Your task to perform on an android device: turn on javascript in the chrome app Image 0: 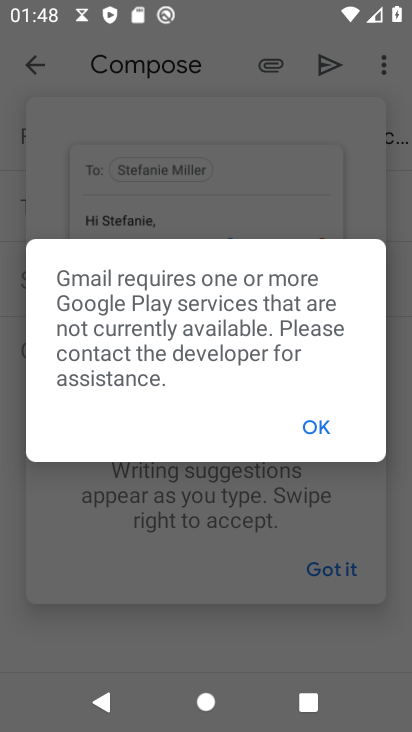
Step 0: press home button
Your task to perform on an android device: turn on javascript in the chrome app Image 1: 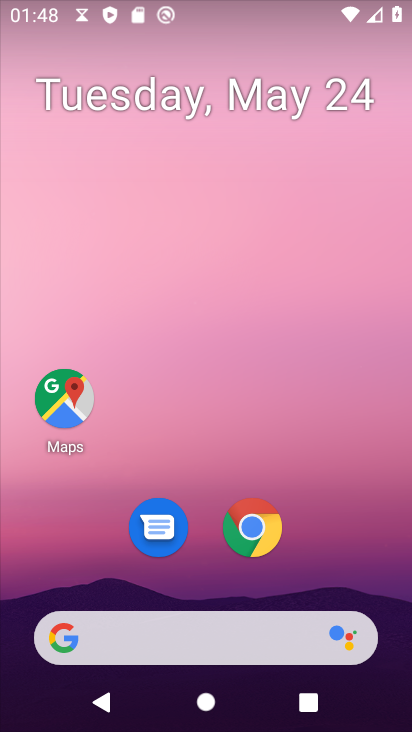
Step 1: click (252, 528)
Your task to perform on an android device: turn on javascript in the chrome app Image 2: 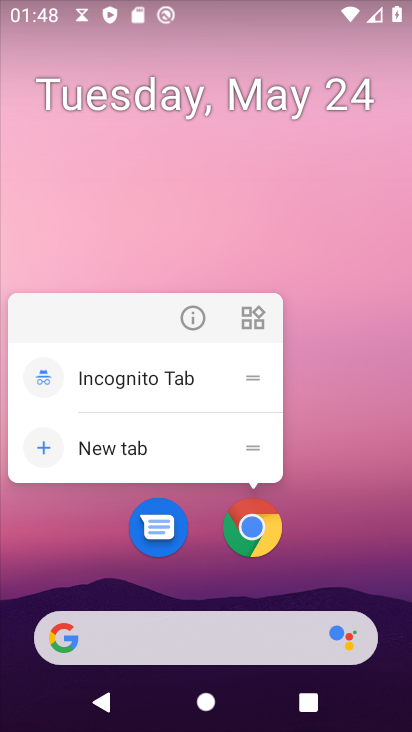
Step 2: click (261, 535)
Your task to perform on an android device: turn on javascript in the chrome app Image 3: 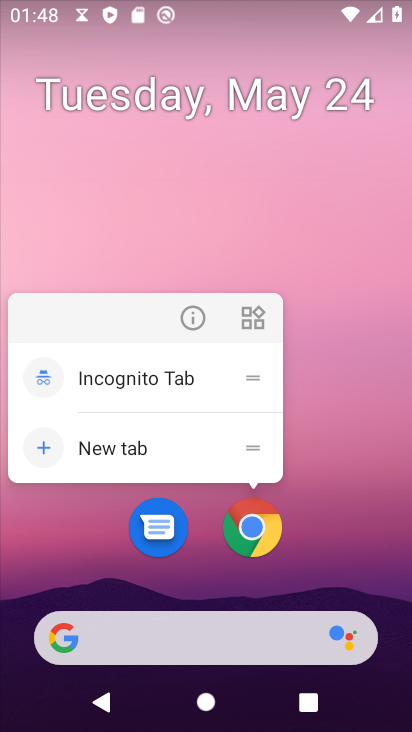
Step 3: click (254, 548)
Your task to perform on an android device: turn on javascript in the chrome app Image 4: 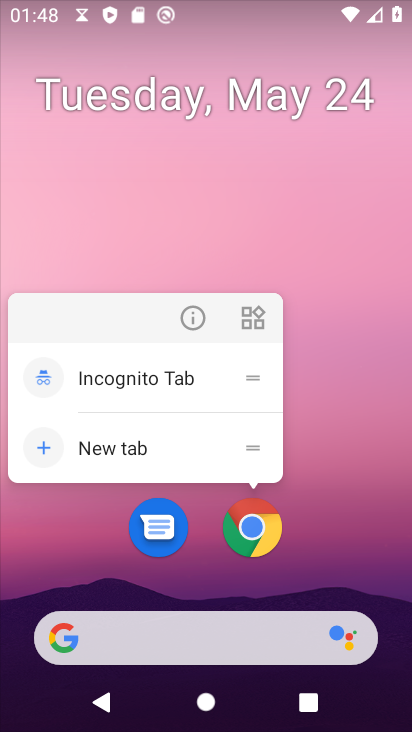
Step 4: click (254, 538)
Your task to perform on an android device: turn on javascript in the chrome app Image 5: 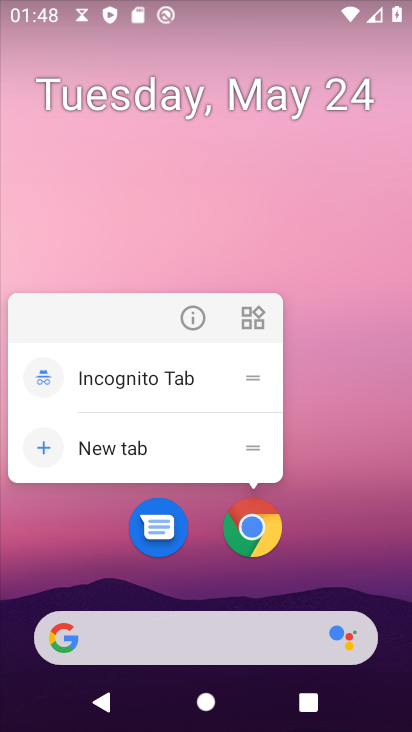
Step 5: click (256, 534)
Your task to perform on an android device: turn on javascript in the chrome app Image 6: 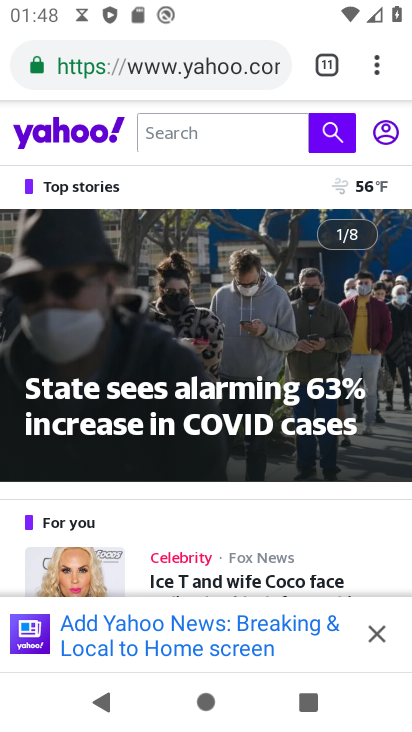
Step 6: drag from (379, 61) to (192, 560)
Your task to perform on an android device: turn on javascript in the chrome app Image 7: 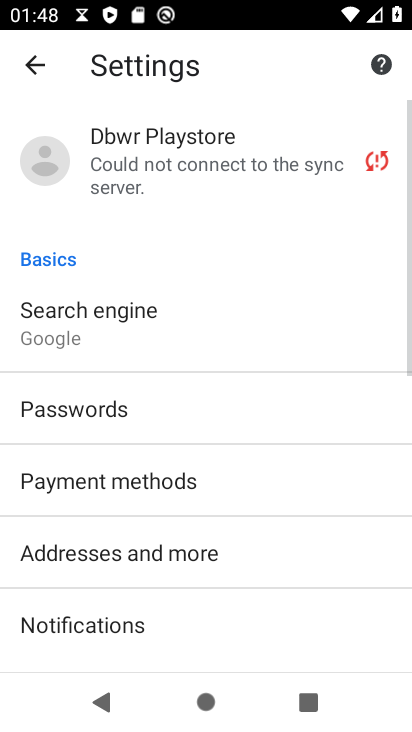
Step 7: drag from (199, 578) to (335, 123)
Your task to perform on an android device: turn on javascript in the chrome app Image 8: 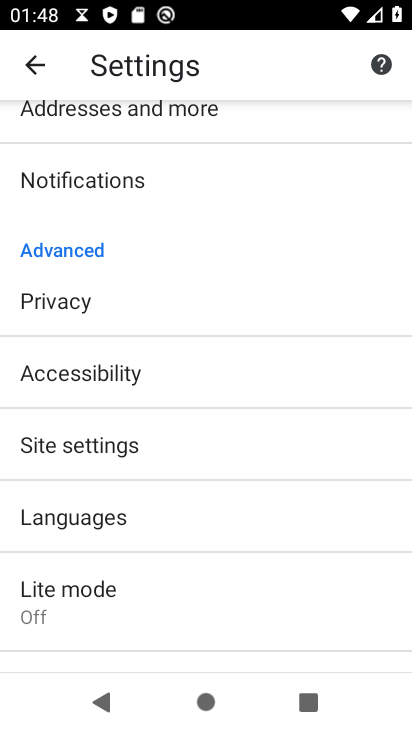
Step 8: drag from (194, 542) to (270, 267)
Your task to perform on an android device: turn on javascript in the chrome app Image 9: 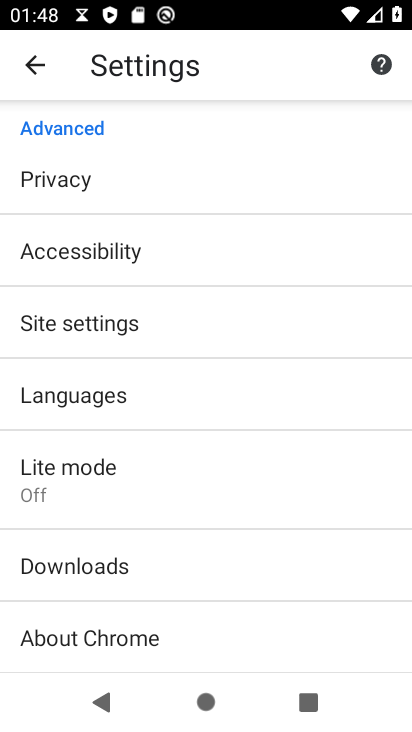
Step 9: click (121, 334)
Your task to perform on an android device: turn on javascript in the chrome app Image 10: 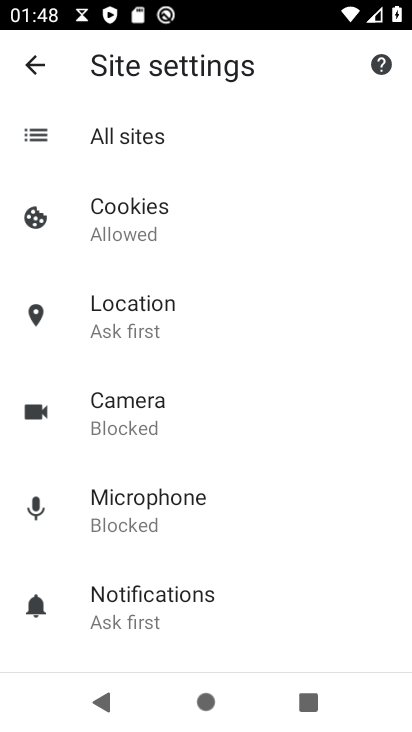
Step 10: drag from (221, 578) to (216, 206)
Your task to perform on an android device: turn on javascript in the chrome app Image 11: 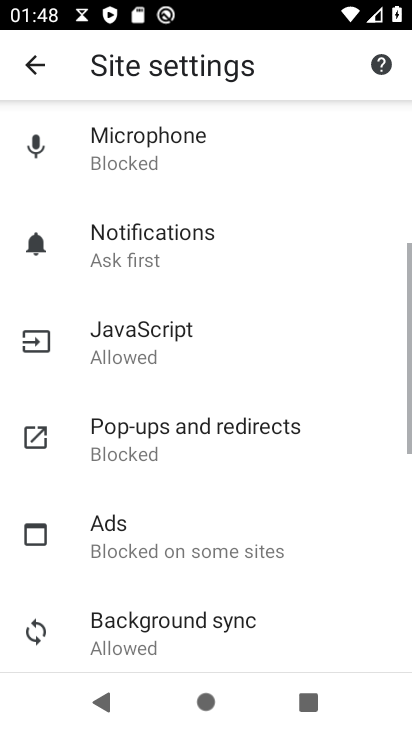
Step 11: click (143, 367)
Your task to perform on an android device: turn on javascript in the chrome app Image 12: 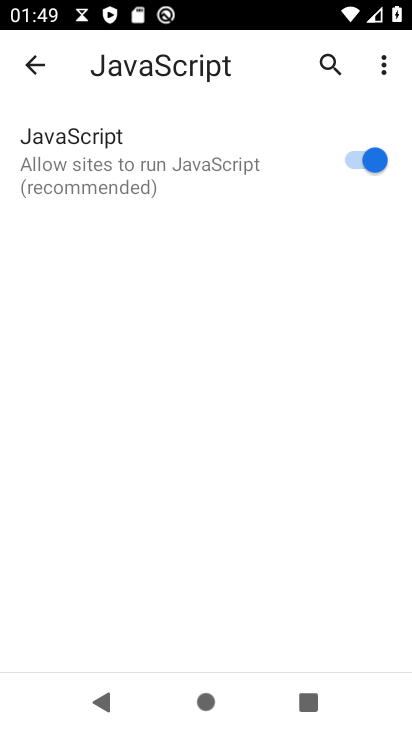
Step 12: task complete